Your task to perform on an android device: show emergency info Image 0: 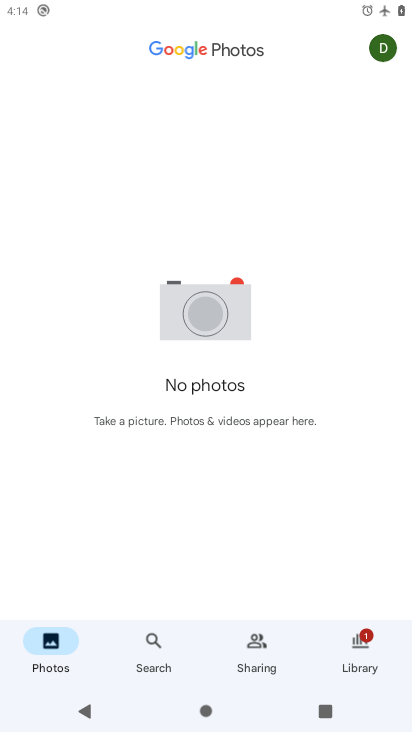
Step 0: press home button
Your task to perform on an android device: show emergency info Image 1: 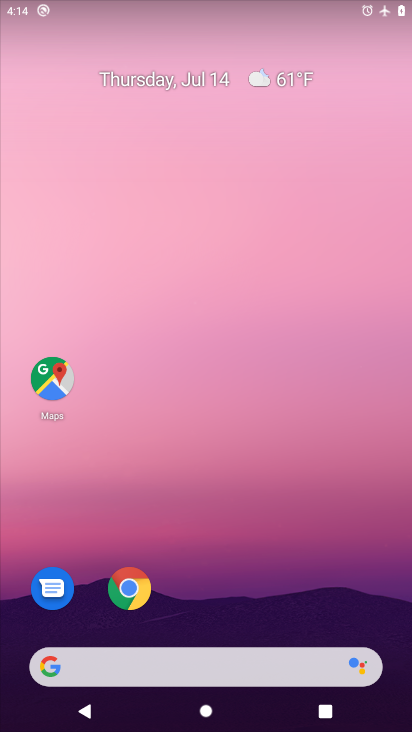
Step 1: drag from (258, 598) to (317, 43)
Your task to perform on an android device: show emergency info Image 2: 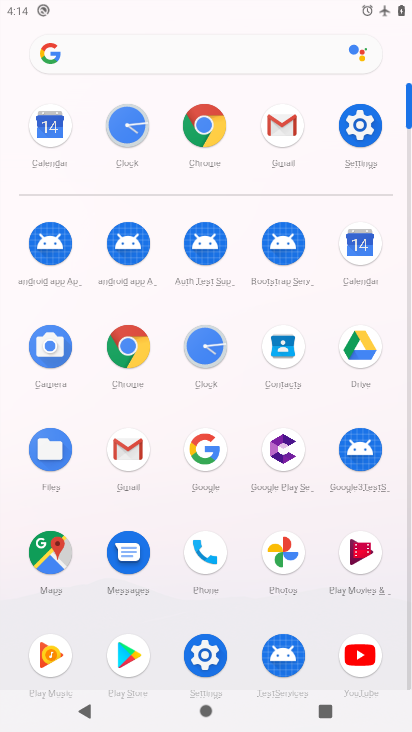
Step 2: click (377, 123)
Your task to perform on an android device: show emergency info Image 3: 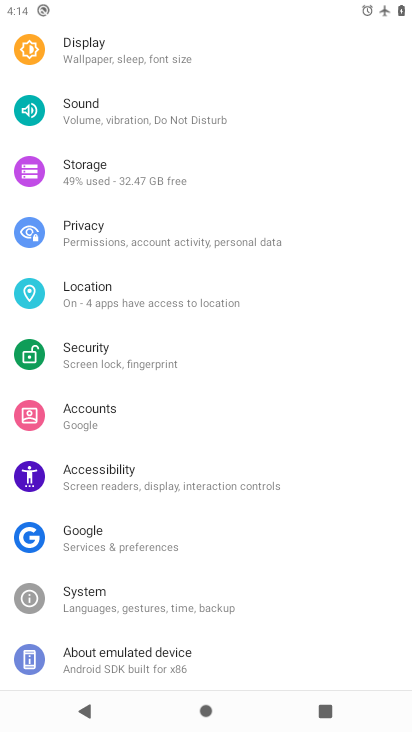
Step 3: click (150, 649)
Your task to perform on an android device: show emergency info Image 4: 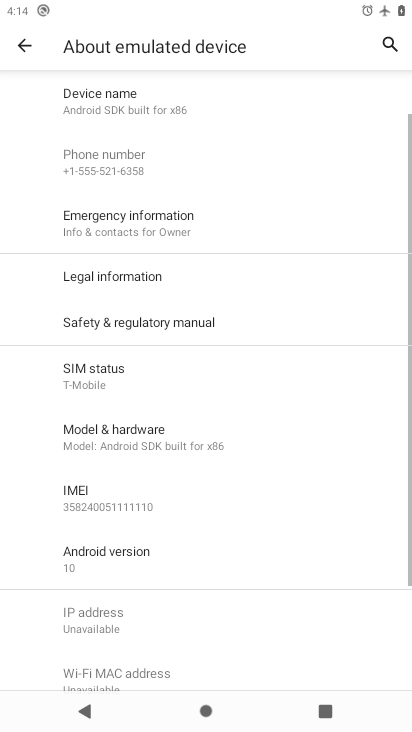
Step 4: click (104, 221)
Your task to perform on an android device: show emergency info Image 5: 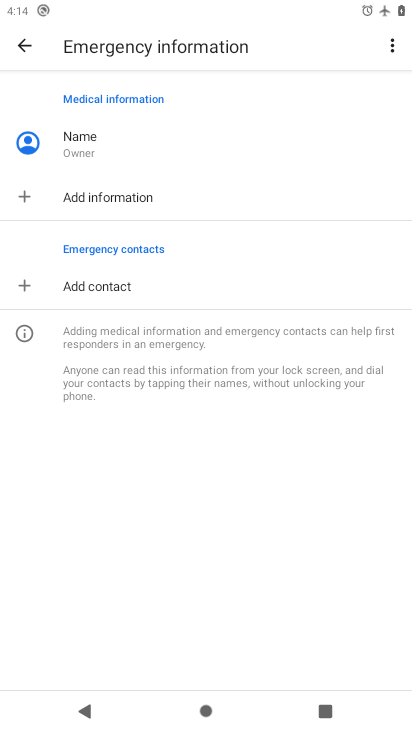
Step 5: task complete